Your task to perform on an android device: turn on translation in the chrome app Image 0: 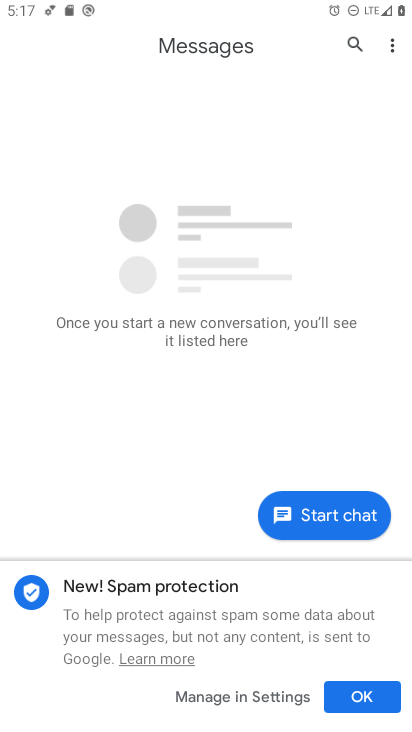
Step 0: press home button
Your task to perform on an android device: turn on translation in the chrome app Image 1: 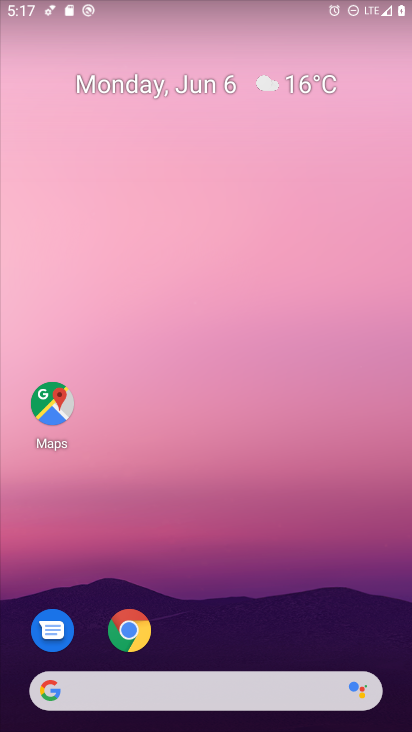
Step 1: drag from (297, 609) to (180, 52)
Your task to perform on an android device: turn on translation in the chrome app Image 2: 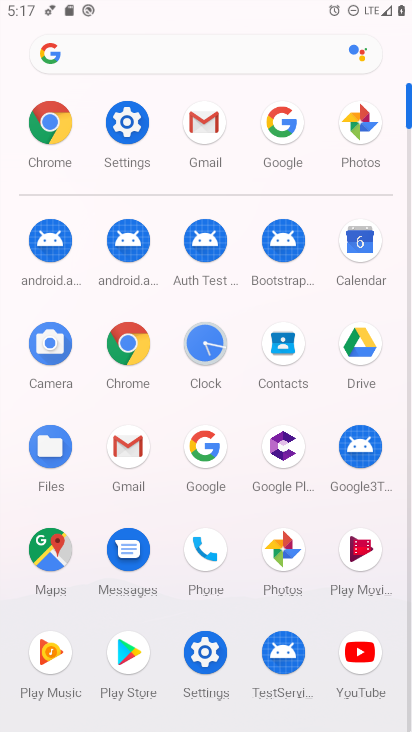
Step 2: click (120, 340)
Your task to perform on an android device: turn on translation in the chrome app Image 3: 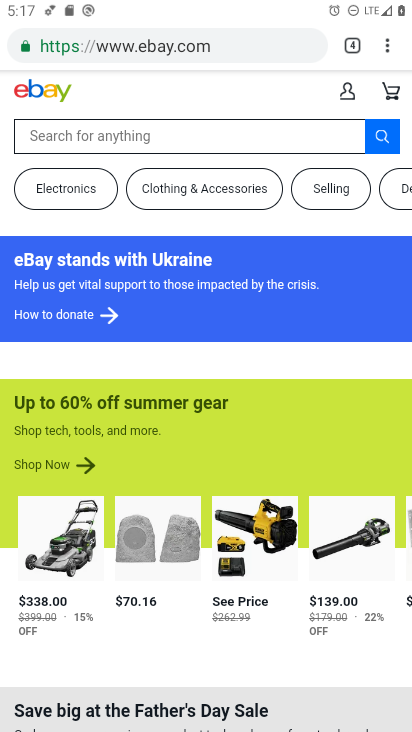
Step 3: click (389, 49)
Your task to perform on an android device: turn on translation in the chrome app Image 4: 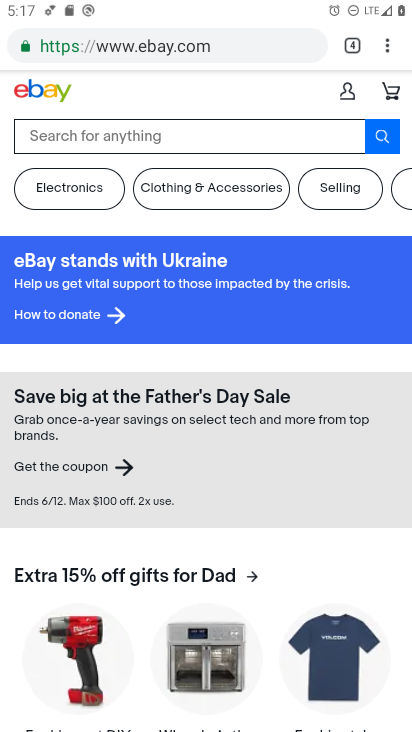
Step 4: click (378, 49)
Your task to perform on an android device: turn on translation in the chrome app Image 5: 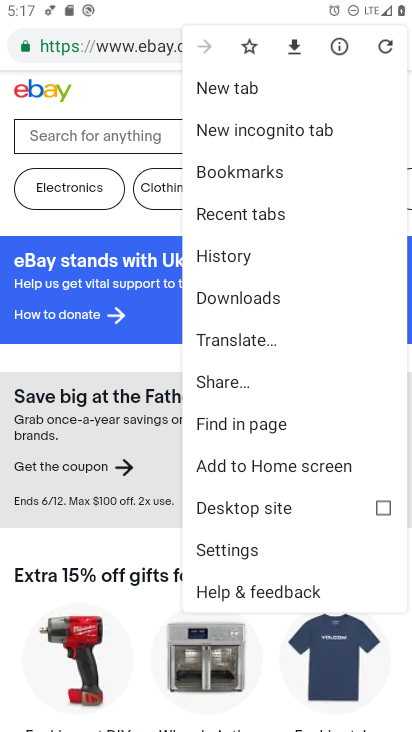
Step 5: click (256, 553)
Your task to perform on an android device: turn on translation in the chrome app Image 6: 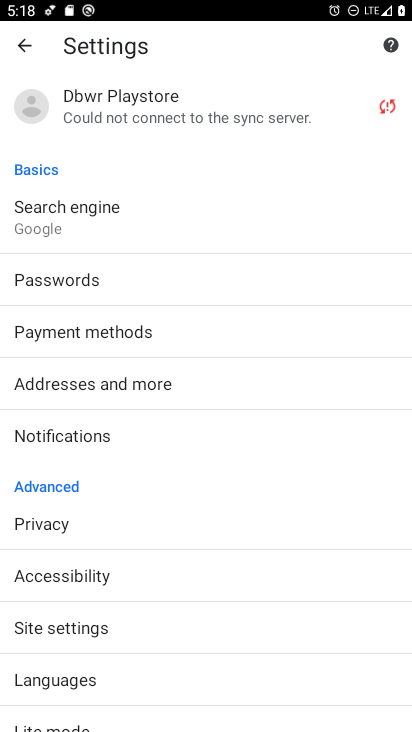
Step 6: click (148, 686)
Your task to perform on an android device: turn on translation in the chrome app Image 7: 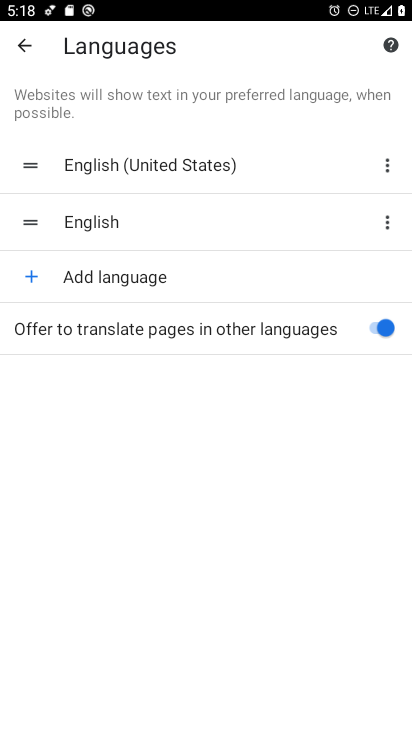
Step 7: task complete